Your task to perform on an android device: see tabs open on other devices in the chrome app Image 0: 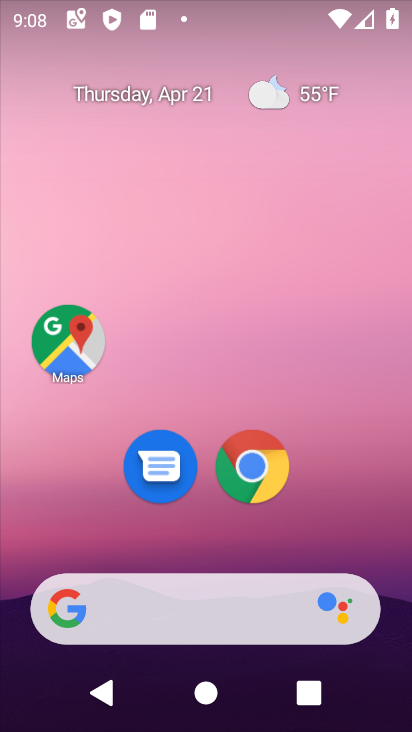
Step 0: click (244, 487)
Your task to perform on an android device: see tabs open on other devices in the chrome app Image 1: 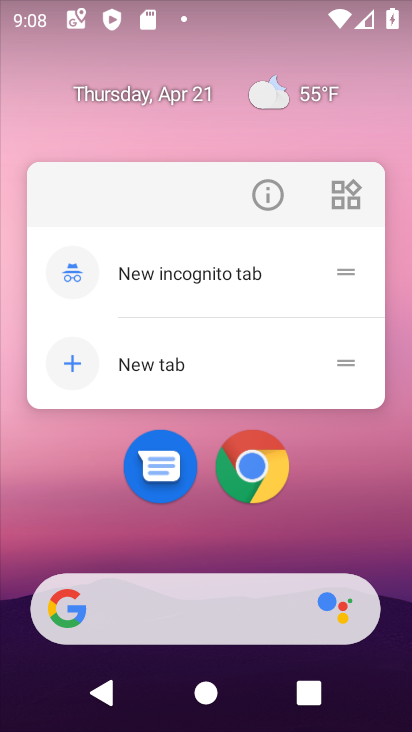
Step 1: click (251, 494)
Your task to perform on an android device: see tabs open on other devices in the chrome app Image 2: 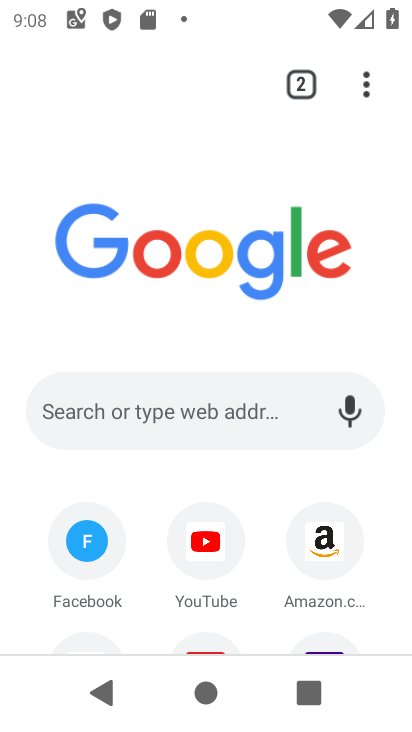
Step 2: click (292, 76)
Your task to perform on an android device: see tabs open on other devices in the chrome app Image 3: 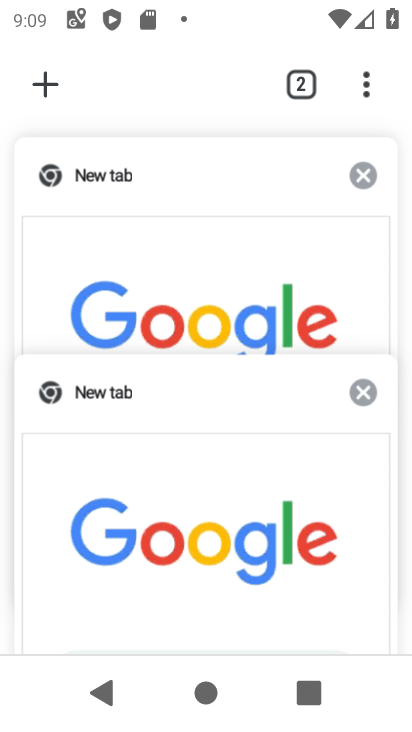
Step 3: task complete